Your task to perform on an android device: Turn on the flashlight Image 0: 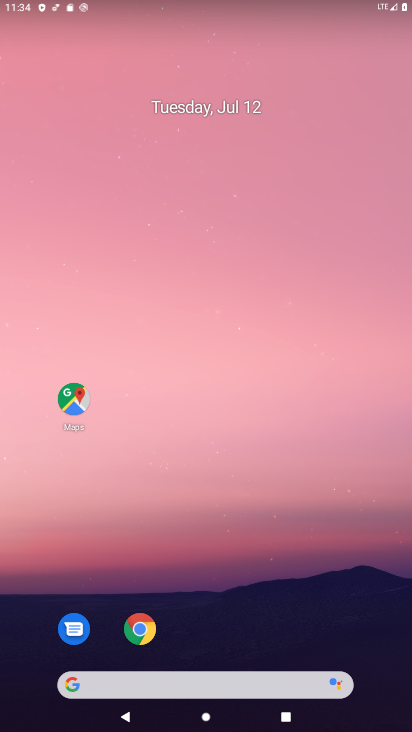
Step 0: drag from (326, 67) to (327, 731)
Your task to perform on an android device: Turn on the flashlight Image 1: 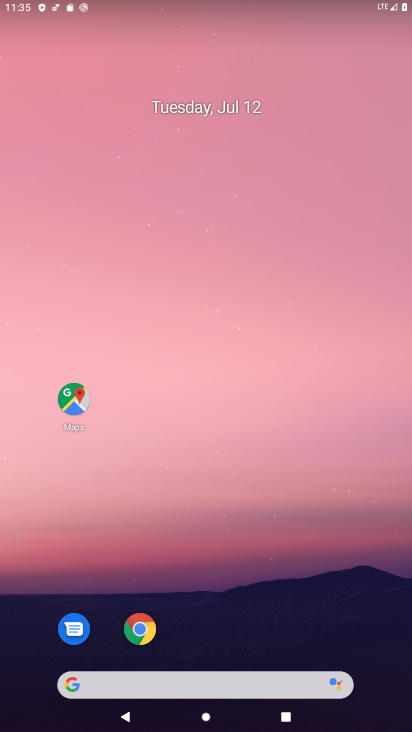
Step 1: task complete